Your task to perform on an android device: Open Youtube and go to the subscriptions tab Image 0: 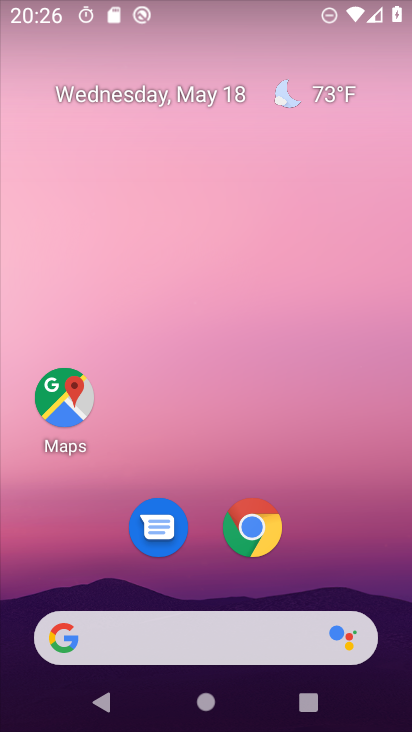
Step 0: drag from (389, 699) to (307, 25)
Your task to perform on an android device: Open Youtube and go to the subscriptions tab Image 1: 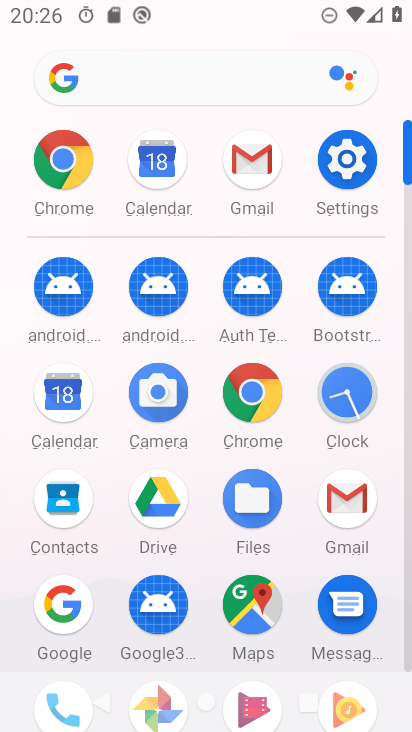
Step 1: drag from (405, 126) to (399, 56)
Your task to perform on an android device: Open Youtube and go to the subscriptions tab Image 2: 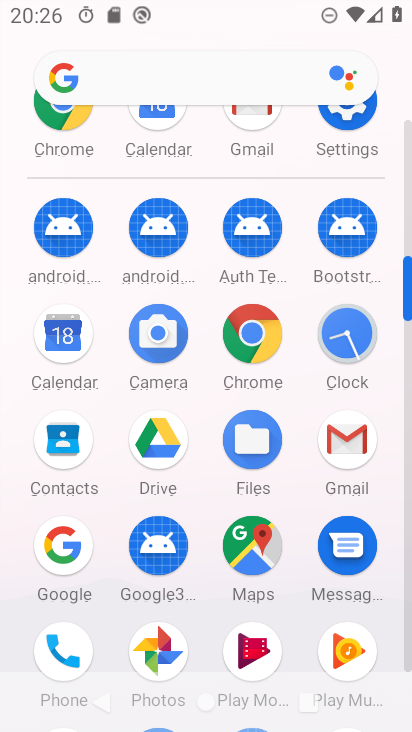
Step 2: drag from (409, 263) to (384, 110)
Your task to perform on an android device: Open Youtube and go to the subscriptions tab Image 3: 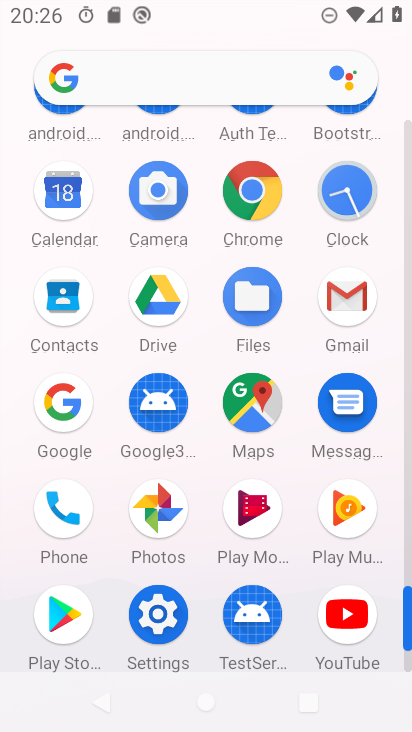
Step 3: click (338, 626)
Your task to perform on an android device: Open Youtube and go to the subscriptions tab Image 4: 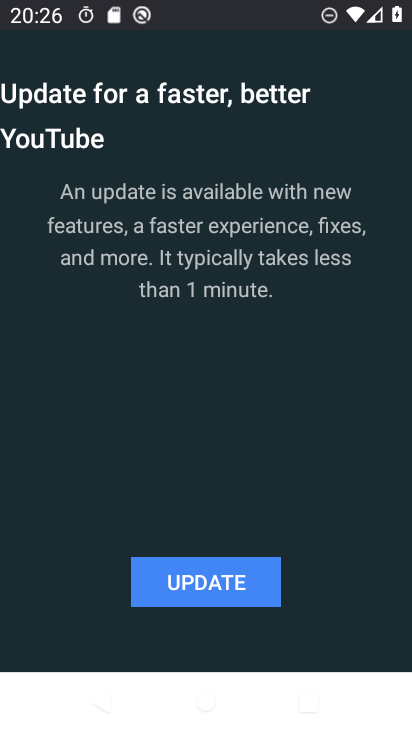
Step 4: click (195, 581)
Your task to perform on an android device: Open Youtube and go to the subscriptions tab Image 5: 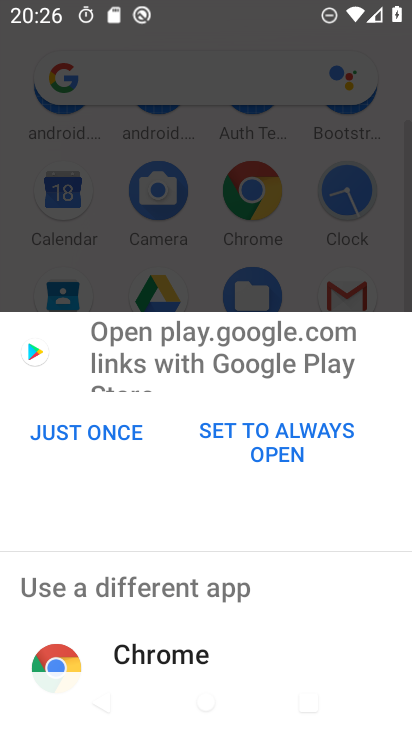
Step 5: click (77, 426)
Your task to perform on an android device: Open Youtube and go to the subscriptions tab Image 6: 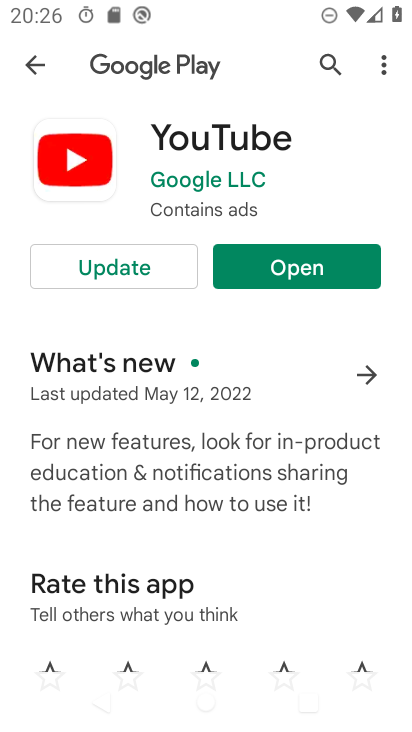
Step 6: click (126, 256)
Your task to perform on an android device: Open Youtube and go to the subscriptions tab Image 7: 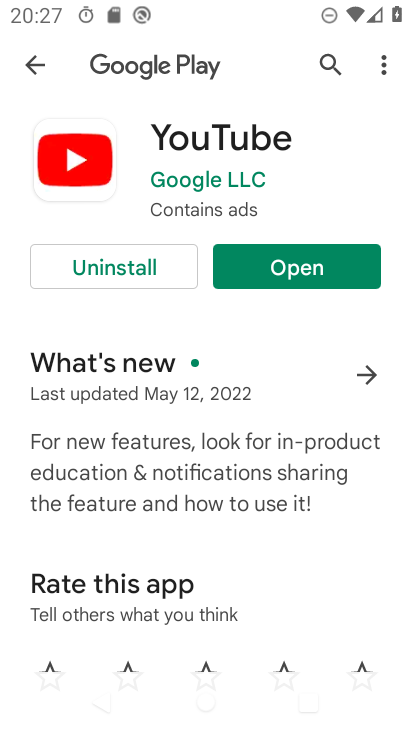
Step 7: click (275, 263)
Your task to perform on an android device: Open Youtube and go to the subscriptions tab Image 8: 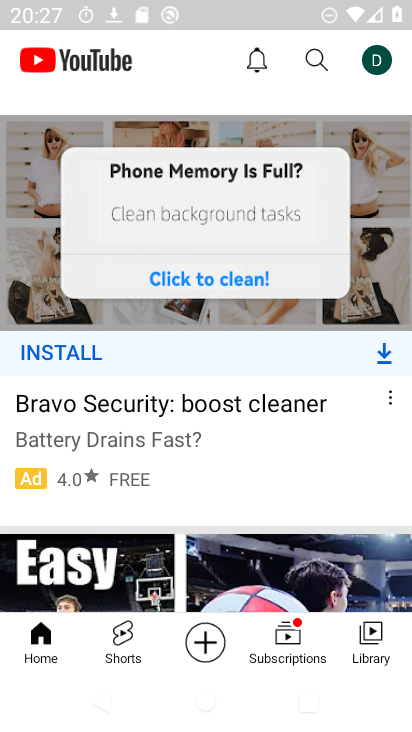
Step 8: click (288, 646)
Your task to perform on an android device: Open Youtube and go to the subscriptions tab Image 9: 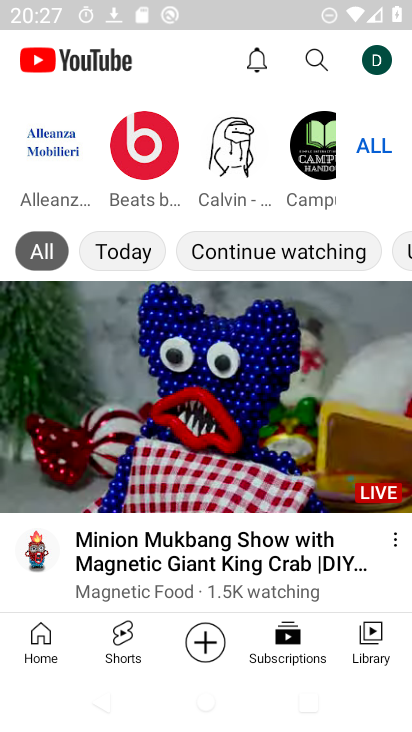
Step 9: task complete